Your task to perform on an android device: change notification settings in the gmail app Image 0: 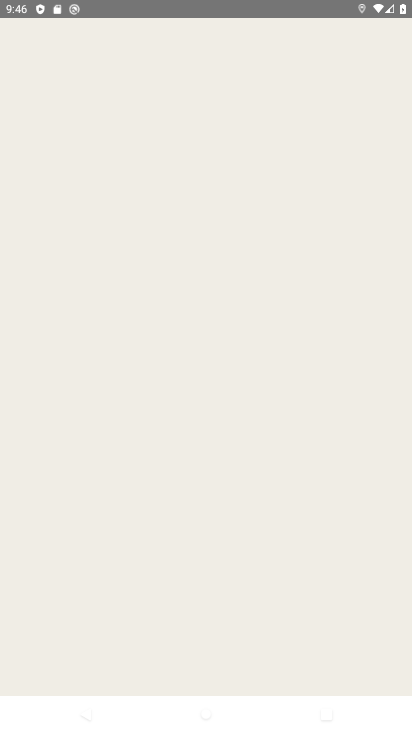
Step 0: click (228, 165)
Your task to perform on an android device: change notification settings in the gmail app Image 1: 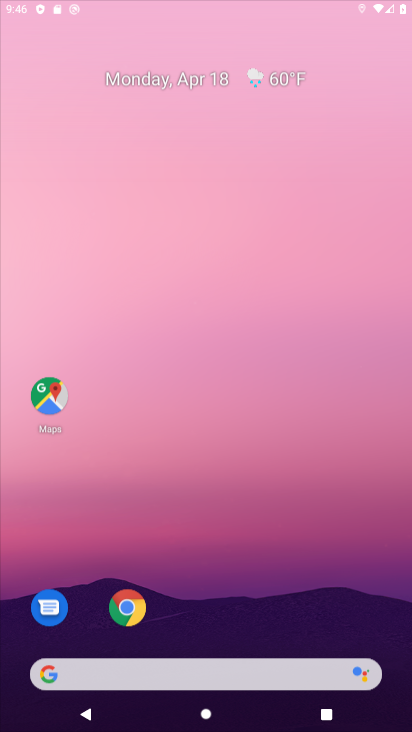
Step 1: drag from (208, 616) to (175, 39)
Your task to perform on an android device: change notification settings in the gmail app Image 2: 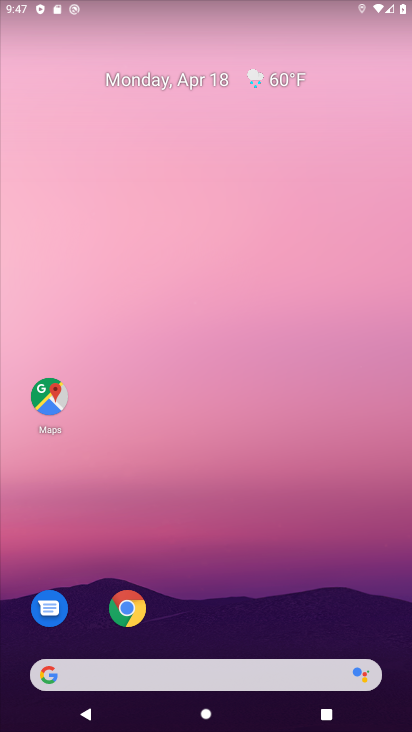
Step 2: drag from (229, 552) to (179, 0)
Your task to perform on an android device: change notification settings in the gmail app Image 3: 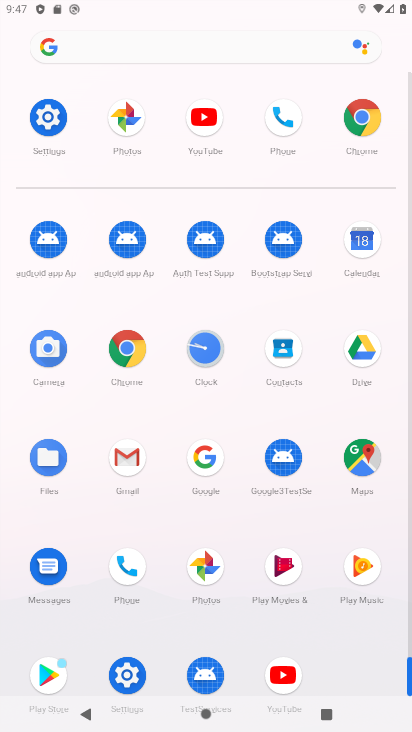
Step 3: click (122, 463)
Your task to perform on an android device: change notification settings in the gmail app Image 4: 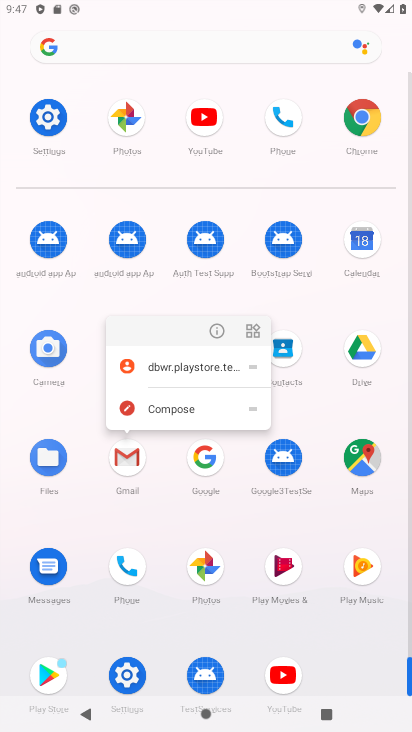
Step 4: click (212, 326)
Your task to perform on an android device: change notification settings in the gmail app Image 5: 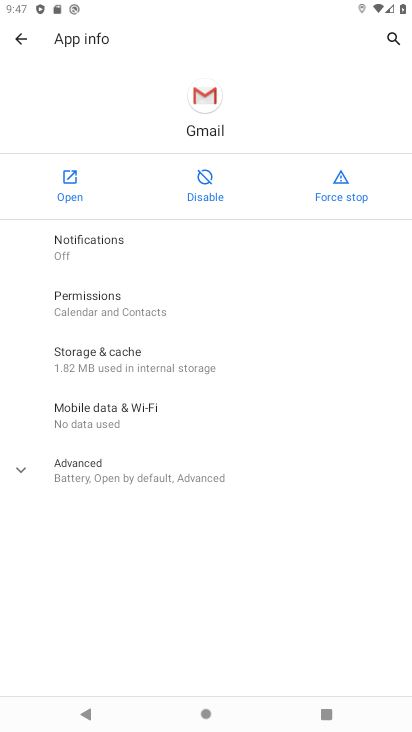
Step 5: click (69, 174)
Your task to perform on an android device: change notification settings in the gmail app Image 6: 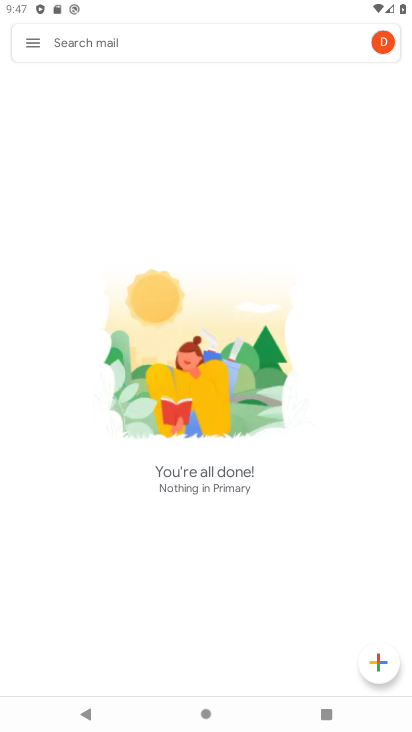
Step 6: click (31, 42)
Your task to perform on an android device: change notification settings in the gmail app Image 7: 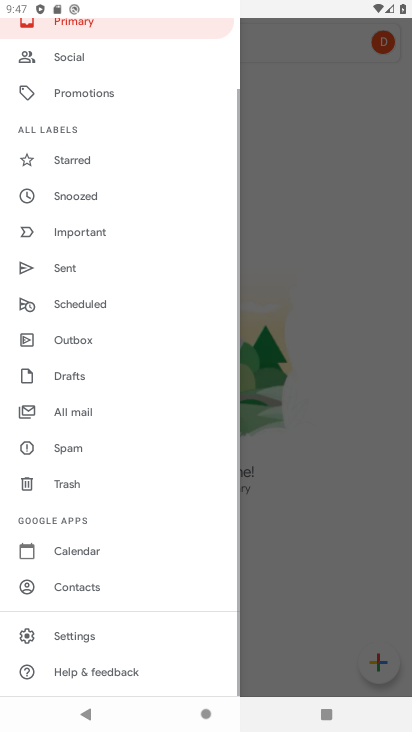
Step 7: drag from (123, 549) to (153, 168)
Your task to perform on an android device: change notification settings in the gmail app Image 8: 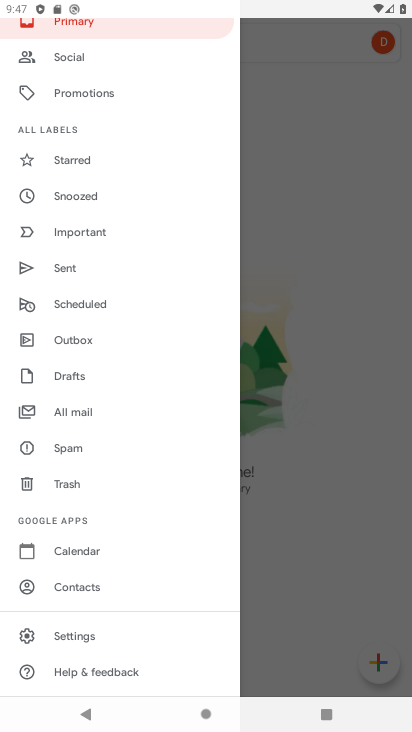
Step 8: click (105, 632)
Your task to perform on an android device: change notification settings in the gmail app Image 9: 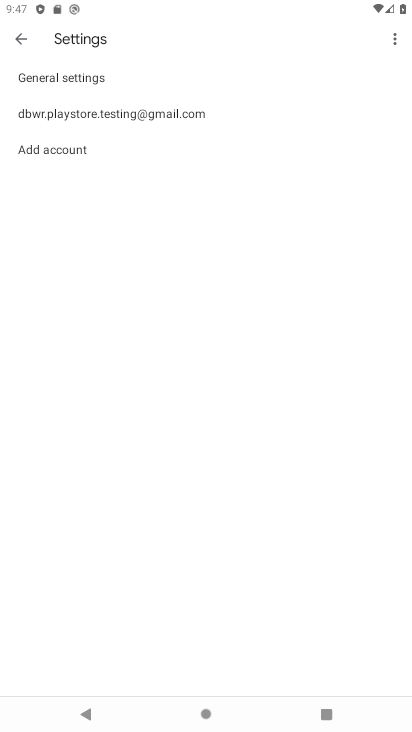
Step 9: click (130, 113)
Your task to perform on an android device: change notification settings in the gmail app Image 10: 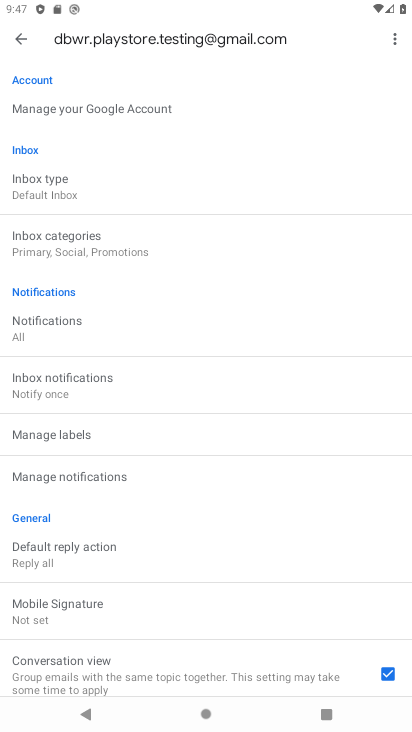
Step 10: click (111, 479)
Your task to perform on an android device: change notification settings in the gmail app Image 11: 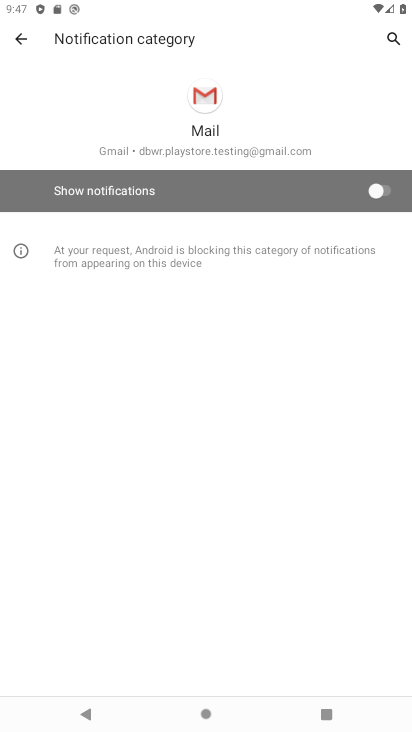
Step 11: click (355, 221)
Your task to perform on an android device: change notification settings in the gmail app Image 12: 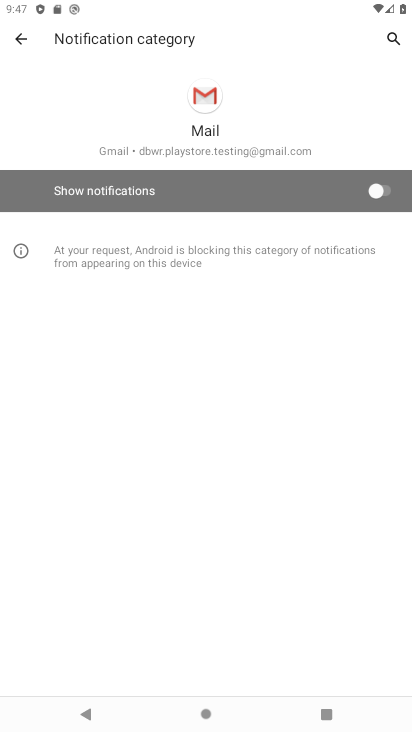
Step 12: click (370, 189)
Your task to perform on an android device: change notification settings in the gmail app Image 13: 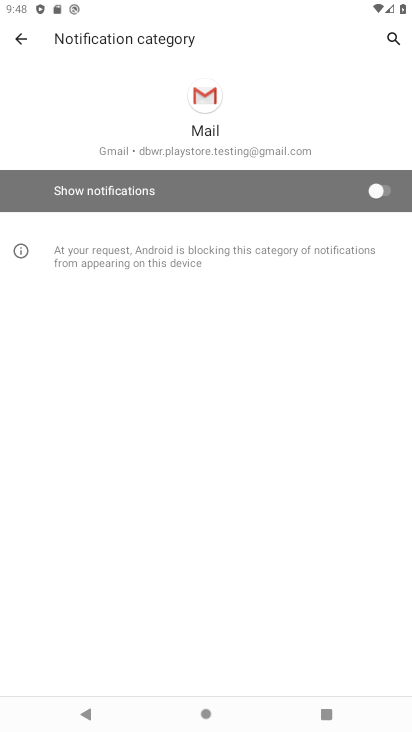
Step 13: click (210, 173)
Your task to perform on an android device: change notification settings in the gmail app Image 14: 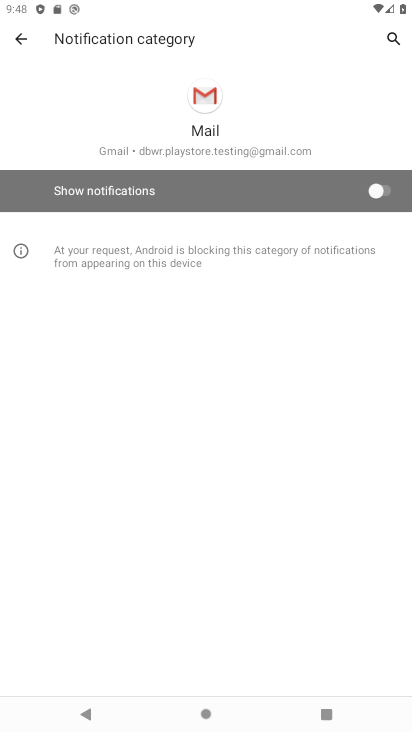
Step 14: click (371, 189)
Your task to perform on an android device: change notification settings in the gmail app Image 15: 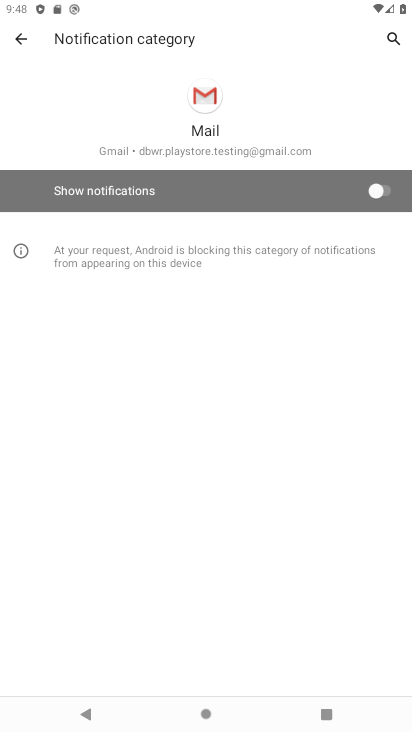
Step 15: drag from (376, 197) to (411, 189)
Your task to perform on an android device: change notification settings in the gmail app Image 16: 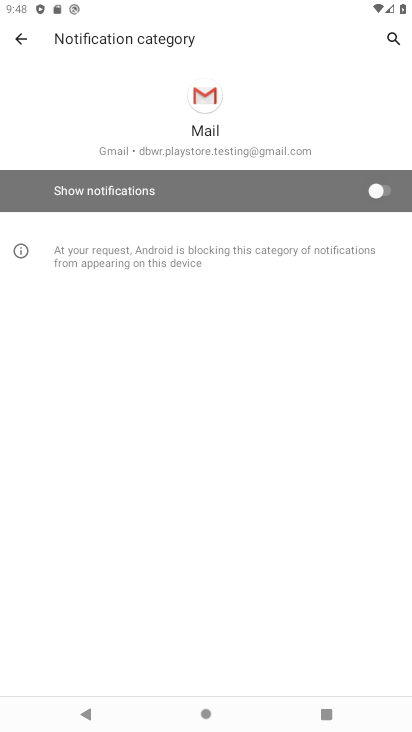
Step 16: click (386, 194)
Your task to perform on an android device: change notification settings in the gmail app Image 17: 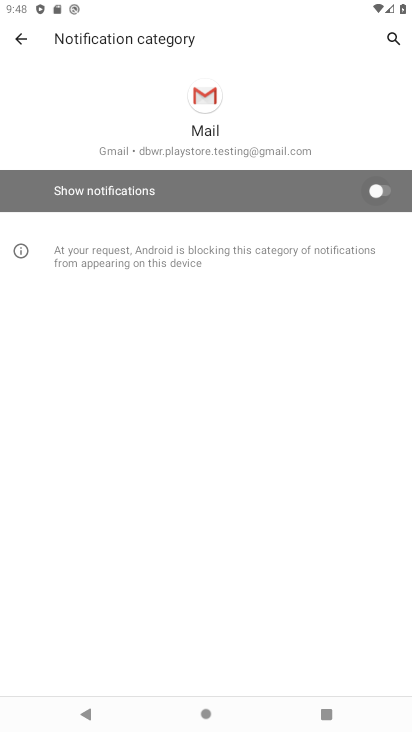
Step 17: click (384, 194)
Your task to perform on an android device: change notification settings in the gmail app Image 18: 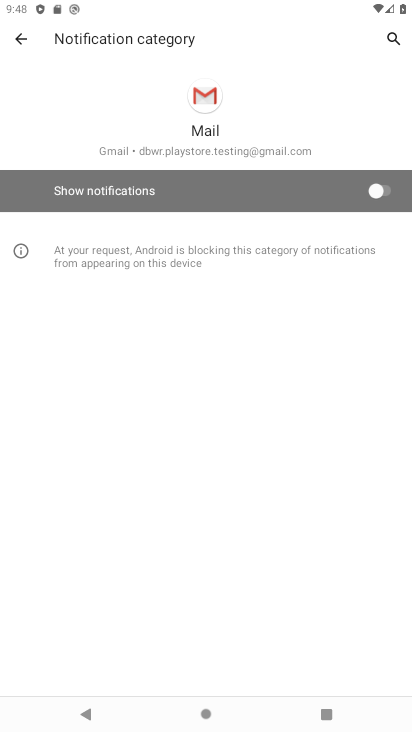
Step 18: click (379, 192)
Your task to perform on an android device: change notification settings in the gmail app Image 19: 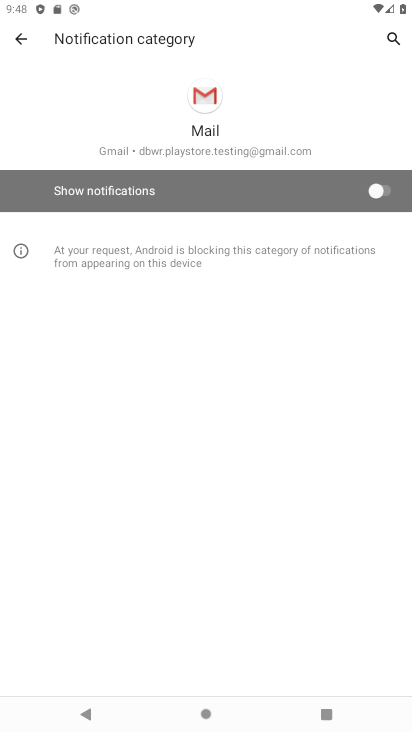
Step 19: click (246, 180)
Your task to perform on an android device: change notification settings in the gmail app Image 20: 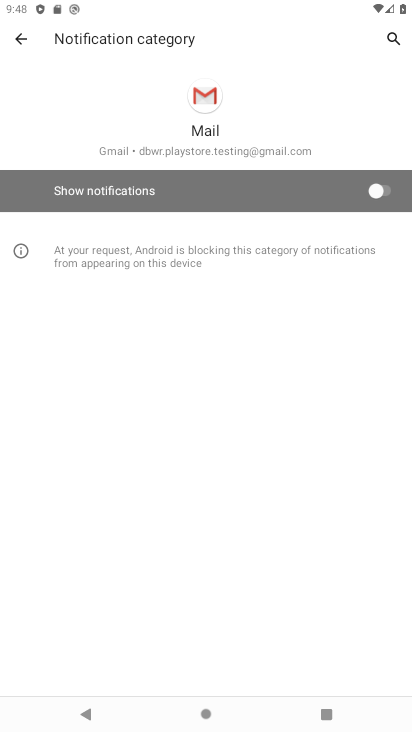
Step 20: click (212, 192)
Your task to perform on an android device: change notification settings in the gmail app Image 21: 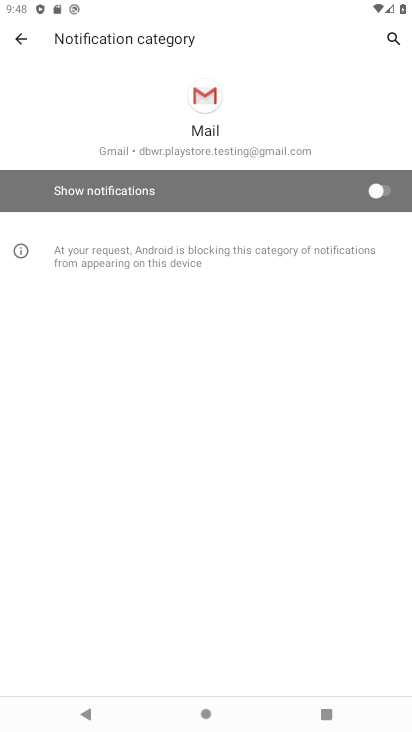
Step 21: task complete